Your task to perform on an android device: Search for "bose soundlink" on walmart.com, select the first entry, and add it to the cart. Image 0: 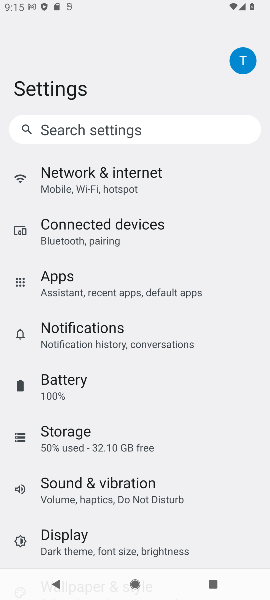
Step 0: press home button
Your task to perform on an android device: Search for "bose soundlink" on walmart.com, select the first entry, and add it to the cart. Image 1: 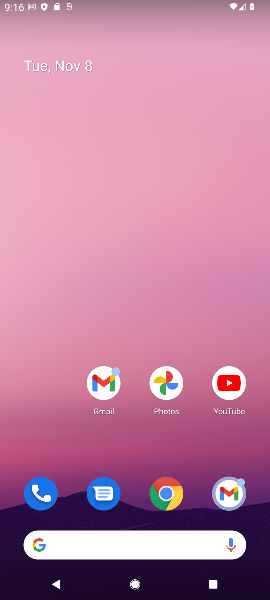
Step 1: click (166, 498)
Your task to perform on an android device: Search for "bose soundlink" on walmart.com, select the first entry, and add it to the cart. Image 2: 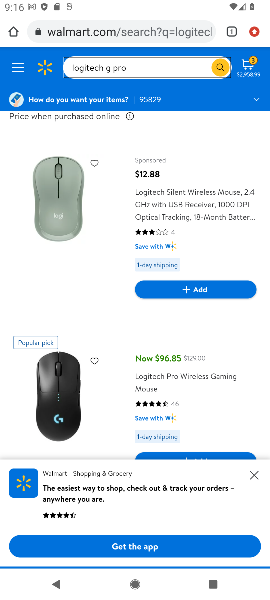
Step 2: click (173, 61)
Your task to perform on an android device: Search for "bose soundlink" on walmart.com, select the first entry, and add it to the cart. Image 3: 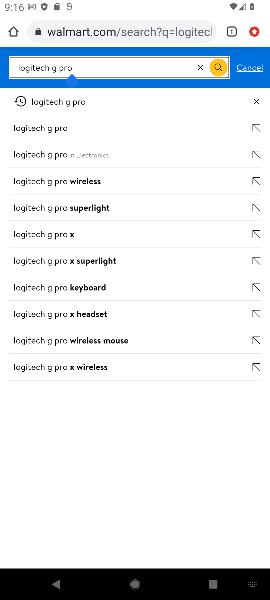
Step 3: click (202, 72)
Your task to perform on an android device: Search for "bose soundlink" on walmart.com, select the first entry, and add it to the cart. Image 4: 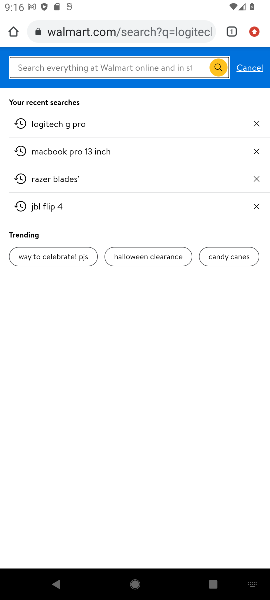
Step 4: type "bose soundlink"
Your task to perform on an android device: Search for "bose soundlink" on walmart.com, select the first entry, and add it to the cart. Image 5: 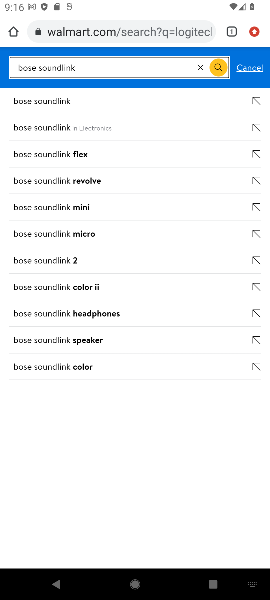
Step 5: click (43, 102)
Your task to perform on an android device: Search for "bose soundlink" on walmart.com, select the first entry, and add it to the cart. Image 6: 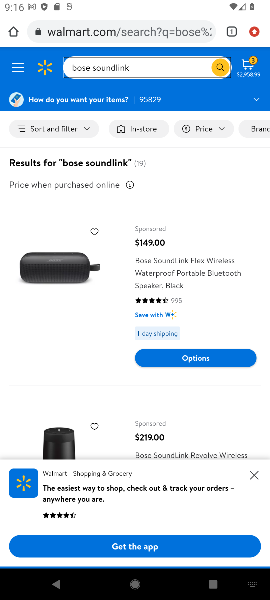
Step 6: click (79, 278)
Your task to perform on an android device: Search for "bose soundlink" on walmart.com, select the first entry, and add it to the cart. Image 7: 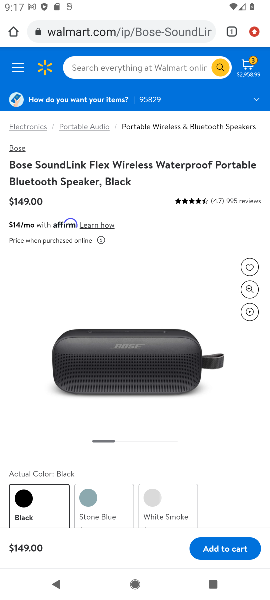
Step 7: click (222, 559)
Your task to perform on an android device: Search for "bose soundlink" on walmart.com, select the first entry, and add it to the cart. Image 8: 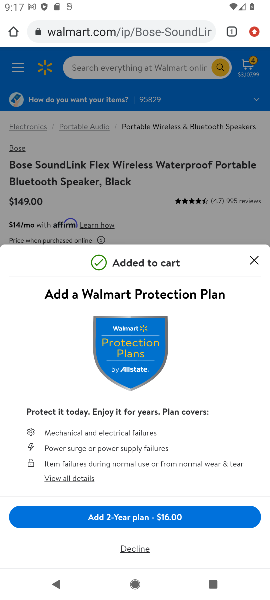
Step 8: task complete